Your task to perform on an android device: change notifications settings Image 0: 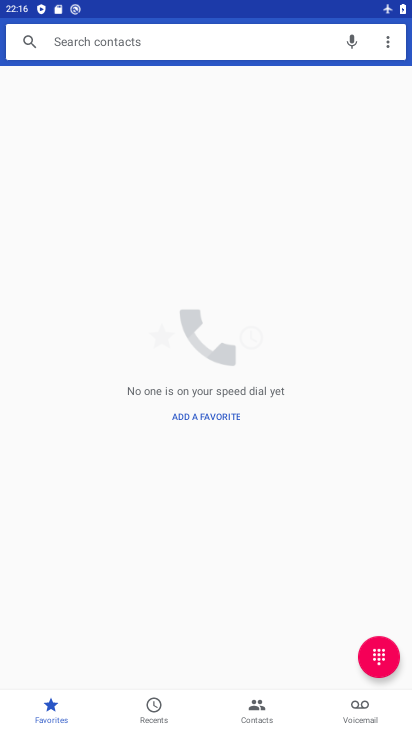
Step 0: press home button
Your task to perform on an android device: change notifications settings Image 1: 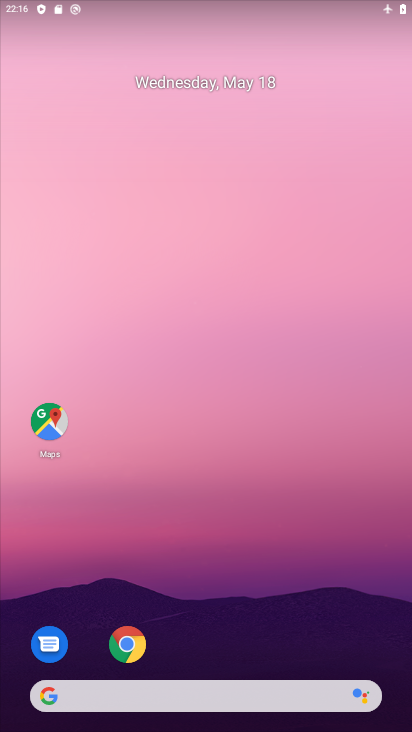
Step 1: drag from (232, 555) to (243, 5)
Your task to perform on an android device: change notifications settings Image 2: 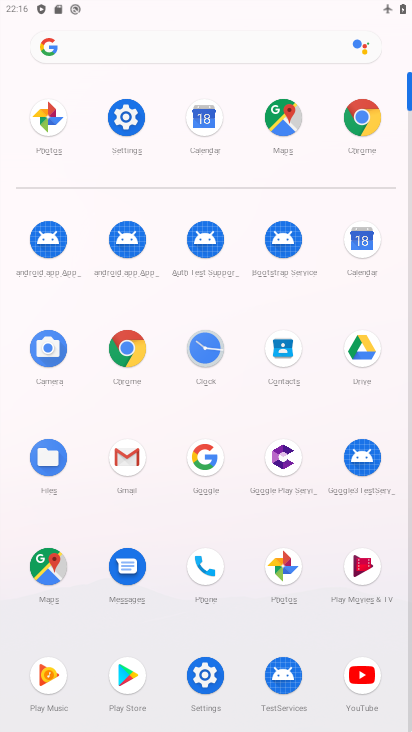
Step 2: click (134, 129)
Your task to perform on an android device: change notifications settings Image 3: 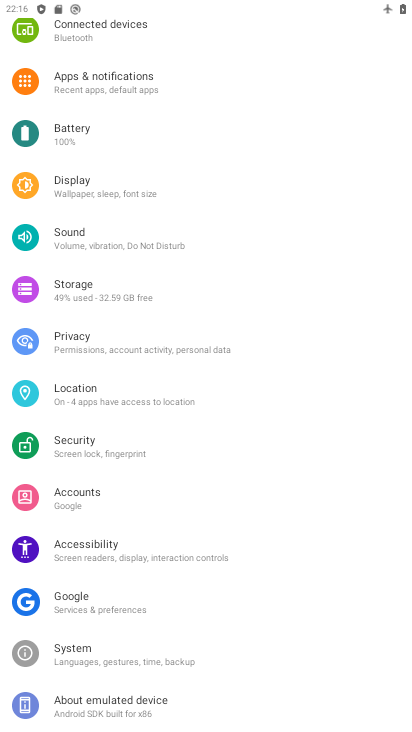
Step 3: click (144, 87)
Your task to perform on an android device: change notifications settings Image 4: 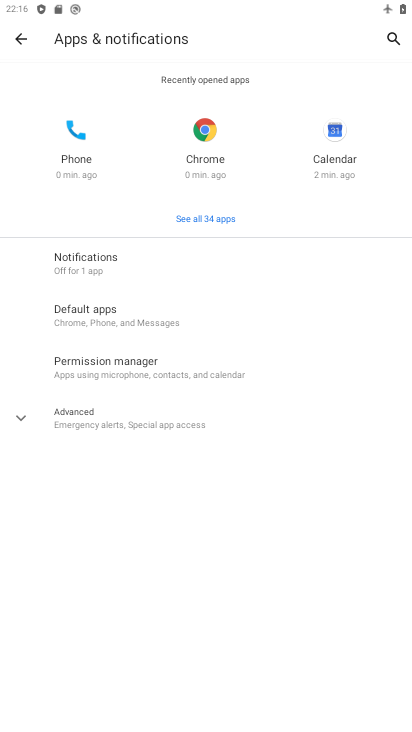
Step 4: click (119, 262)
Your task to perform on an android device: change notifications settings Image 5: 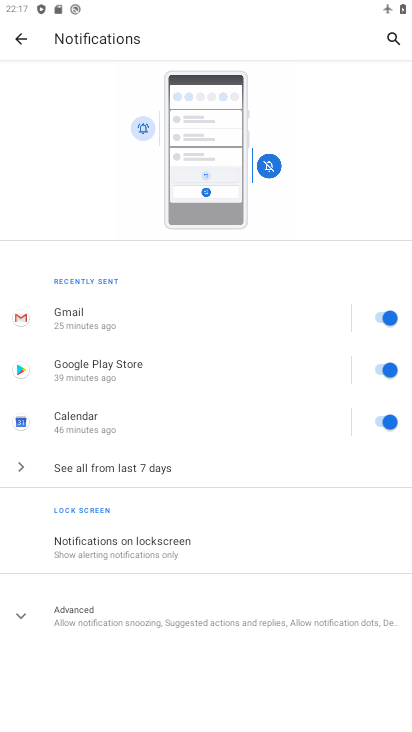
Step 5: task complete